Your task to perform on an android device: open a bookmark in the chrome app Image 0: 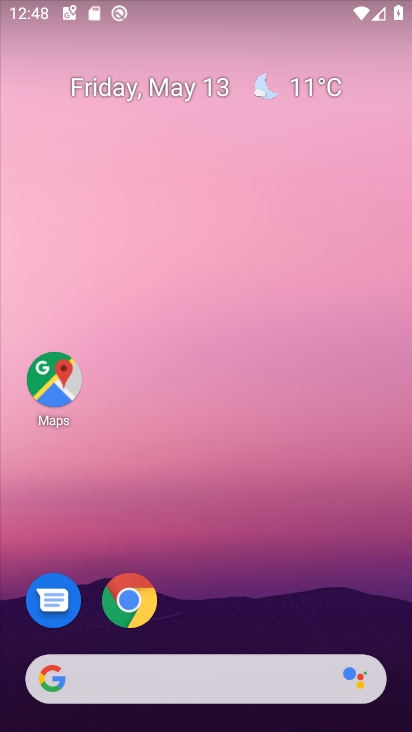
Step 0: click (111, 593)
Your task to perform on an android device: open a bookmark in the chrome app Image 1: 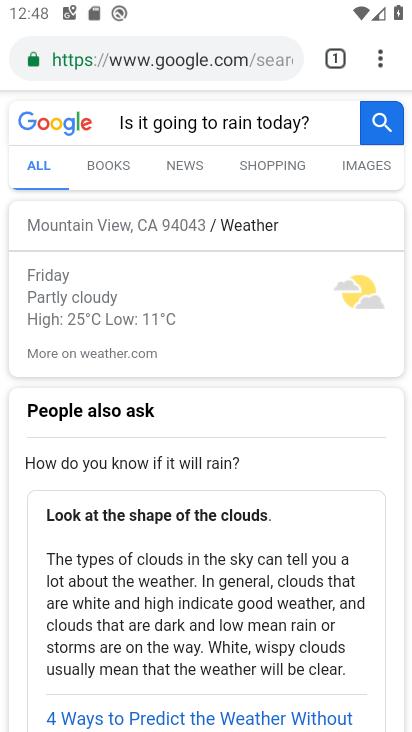
Step 1: click (377, 58)
Your task to perform on an android device: open a bookmark in the chrome app Image 2: 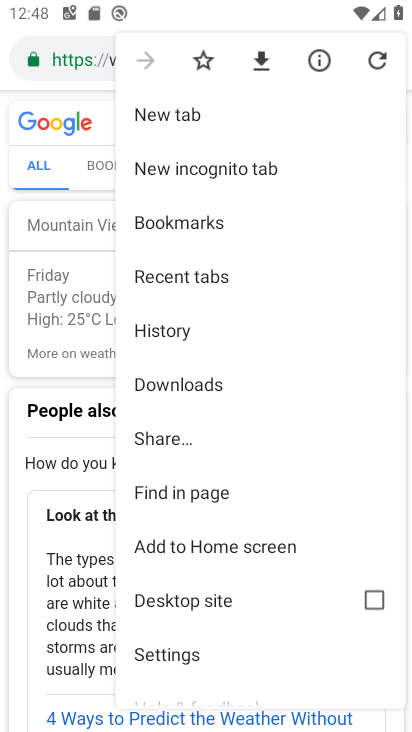
Step 2: click (214, 222)
Your task to perform on an android device: open a bookmark in the chrome app Image 3: 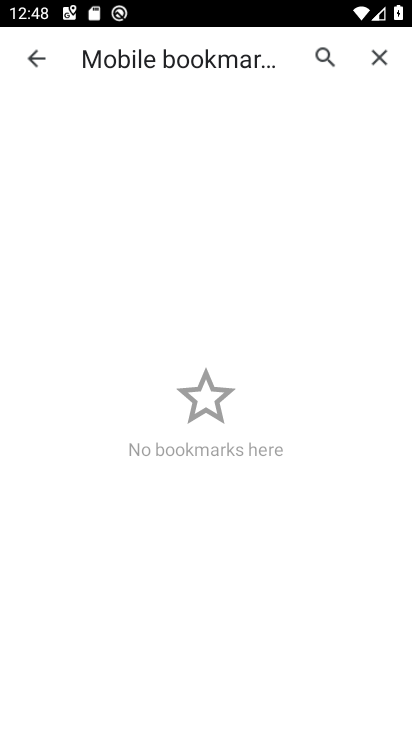
Step 3: task complete